Your task to perform on an android device: stop showing notifications on the lock screen Image 0: 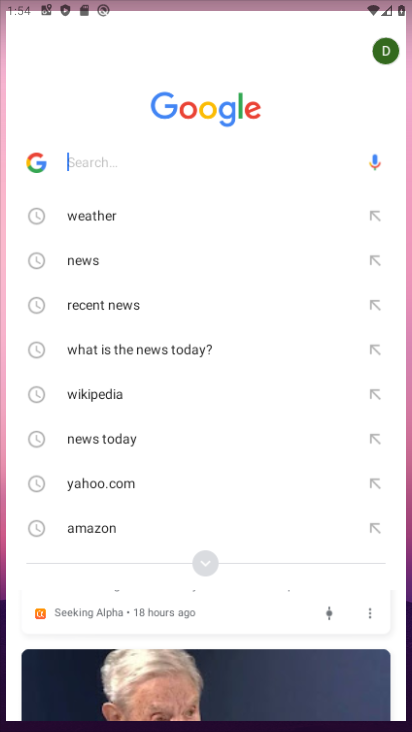
Step 0: press home button
Your task to perform on an android device: stop showing notifications on the lock screen Image 1: 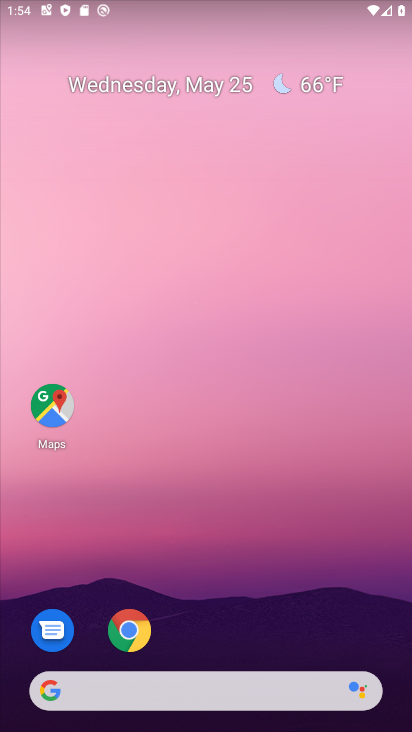
Step 1: drag from (205, 646) to (205, 3)
Your task to perform on an android device: stop showing notifications on the lock screen Image 2: 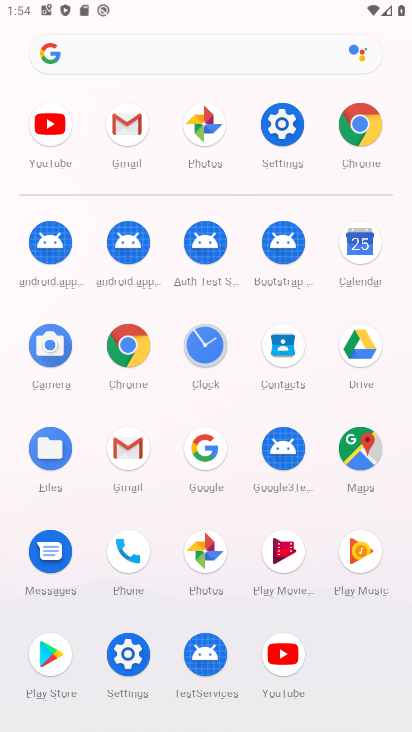
Step 2: click (281, 118)
Your task to perform on an android device: stop showing notifications on the lock screen Image 3: 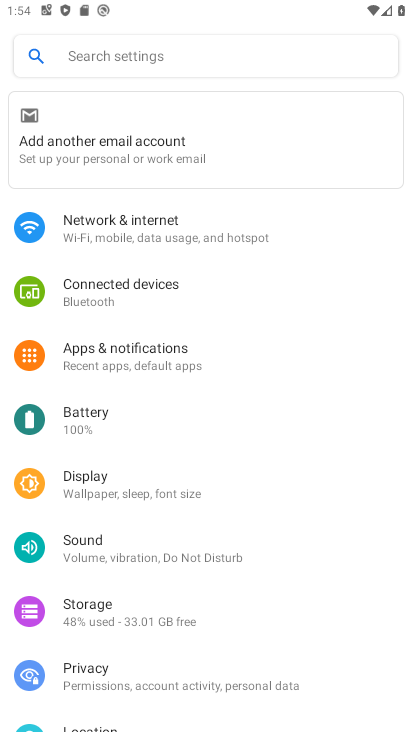
Step 3: click (146, 351)
Your task to perform on an android device: stop showing notifications on the lock screen Image 4: 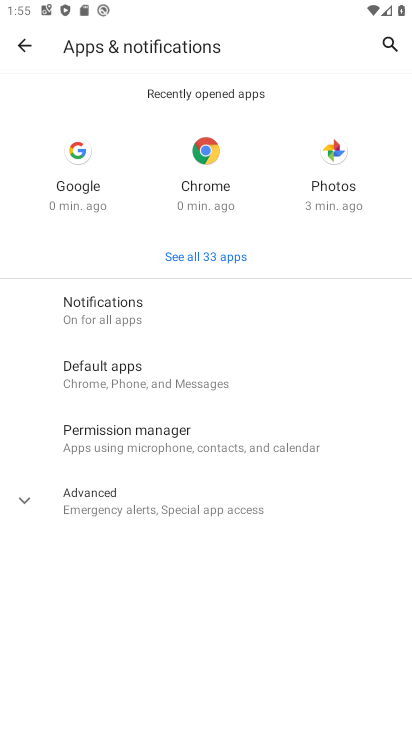
Step 4: click (134, 313)
Your task to perform on an android device: stop showing notifications on the lock screen Image 5: 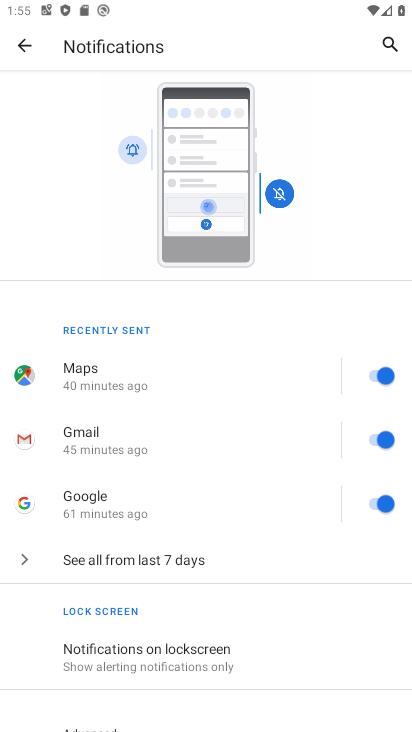
Step 5: click (259, 656)
Your task to perform on an android device: stop showing notifications on the lock screen Image 6: 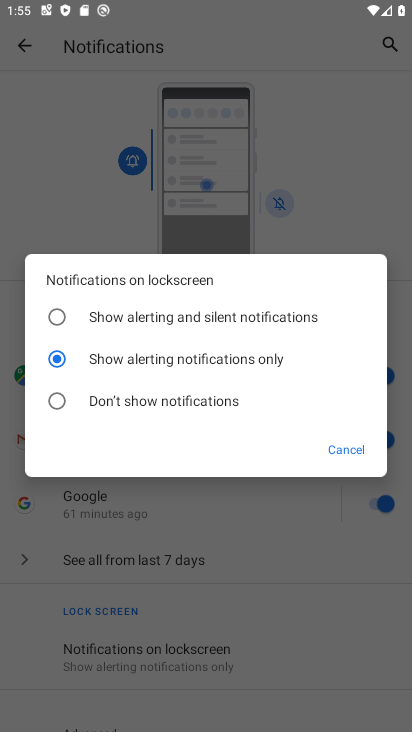
Step 6: click (56, 396)
Your task to perform on an android device: stop showing notifications on the lock screen Image 7: 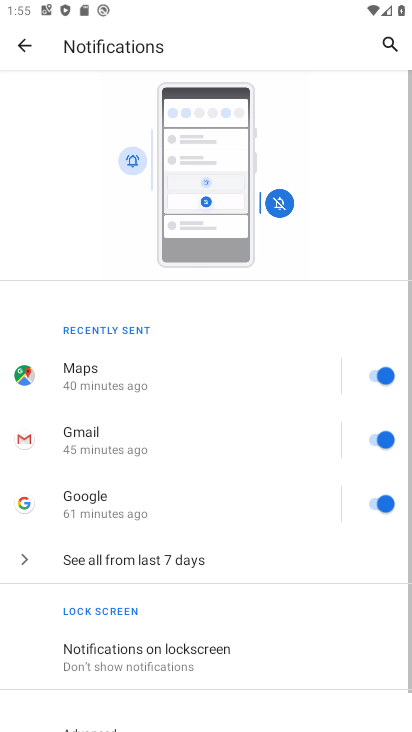
Step 7: task complete